Your task to perform on an android device: toggle sleep mode Image 0: 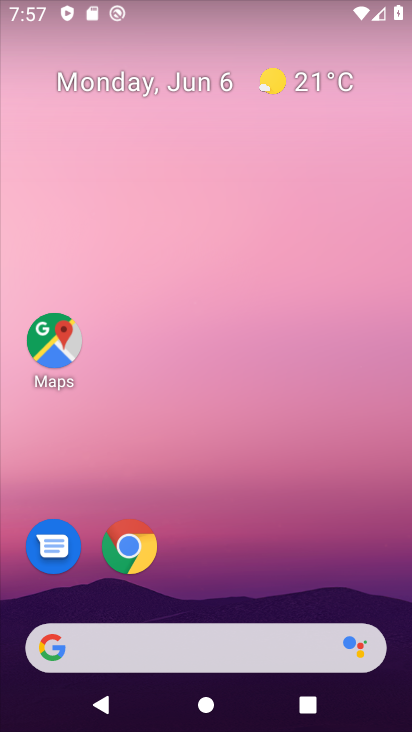
Step 0: drag from (294, 581) to (212, 174)
Your task to perform on an android device: toggle sleep mode Image 1: 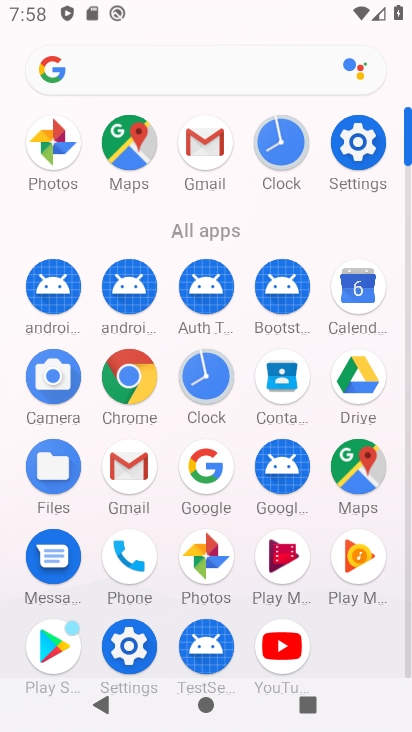
Step 1: task complete